Your task to perform on an android device: Show me popular games on the Play Store Image 0: 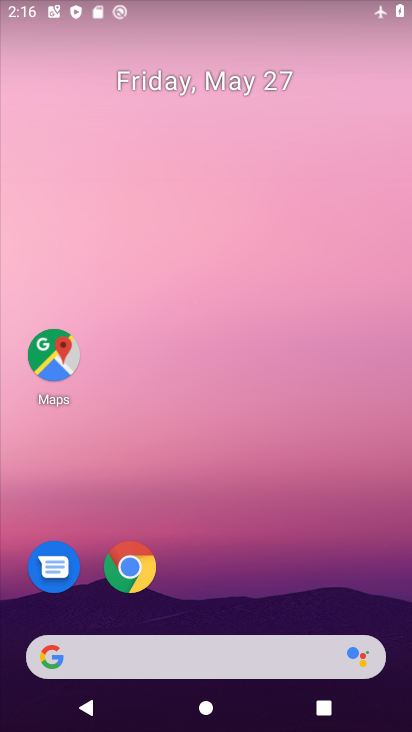
Step 0: drag from (285, 560) to (219, 251)
Your task to perform on an android device: Show me popular games on the Play Store Image 1: 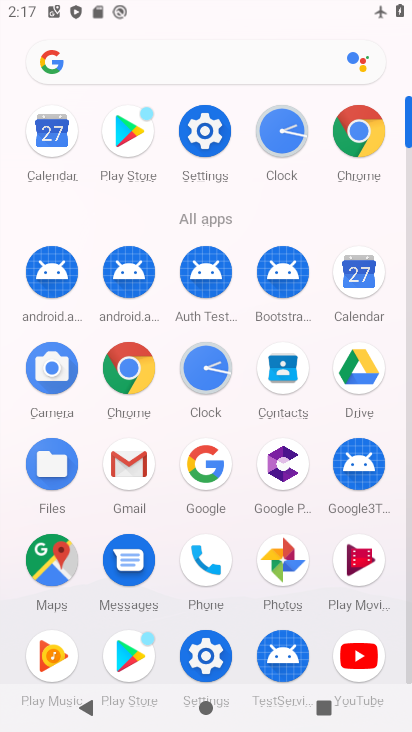
Step 1: click (138, 649)
Your task to perform on an android device: Show me popular games on the Play Store Image 2: 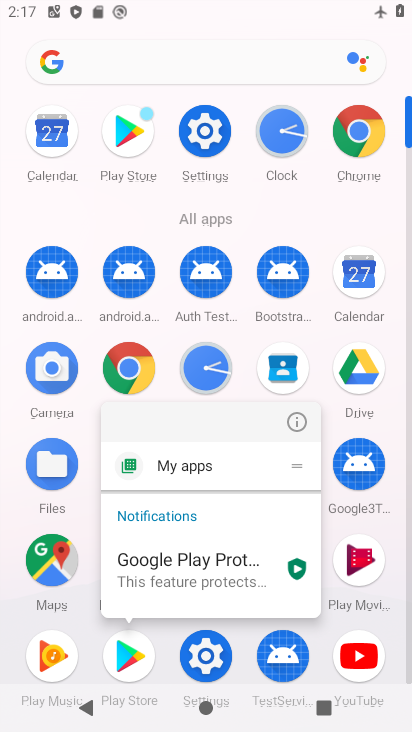
Step 2: click (133, 654)
Your task to perform on an android device: Show me popular games on the Play Store Image 3: 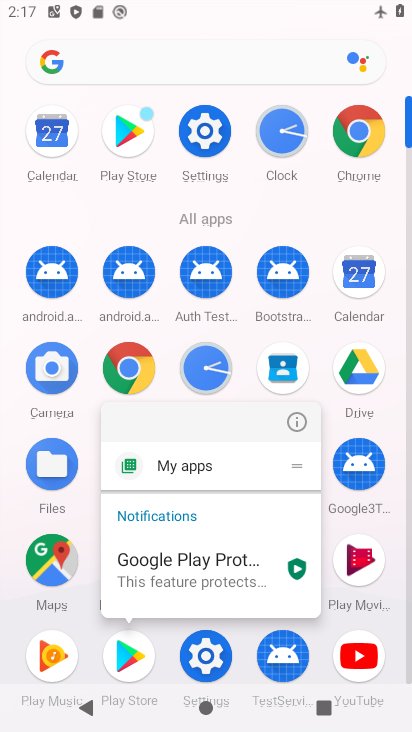
Step 3: click (133, 654)
Your task to perform on an android device: Show me popular games on the Play Store Image 4: 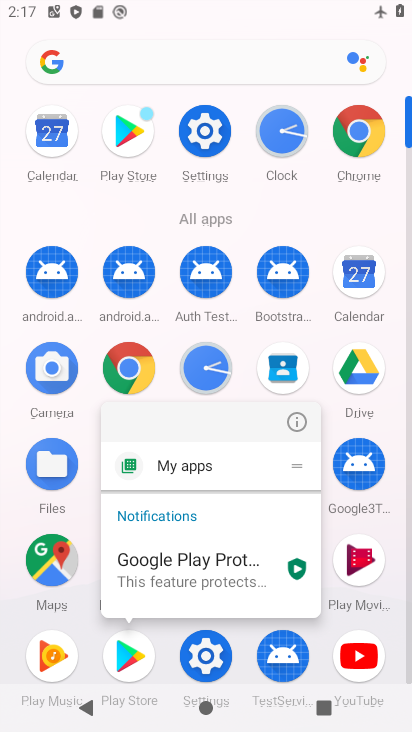
Step 4: click (131, 654)
Your task to perform on an android device: Show me popular games on the Play Store Image 5: 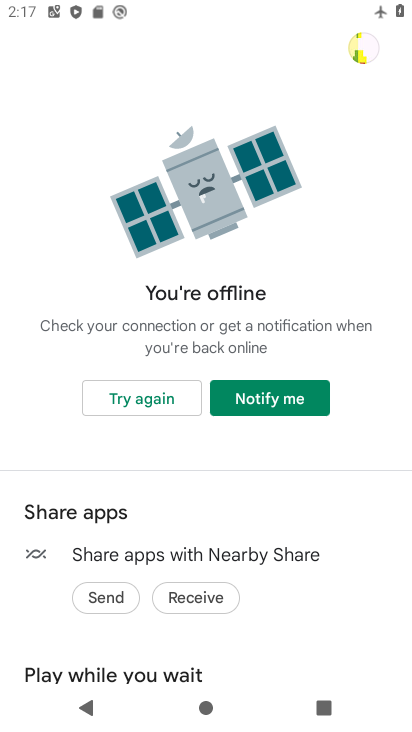
Step 5: click (174, 406)
Your task to perform on an android device: Show me popular games on the Play Store Image 6: 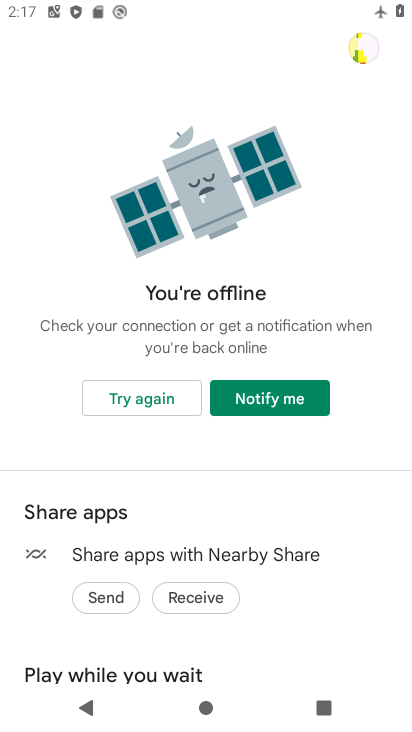
Step 6: task complete